Your task to perform on an android device: What is the recent news? Image 0: 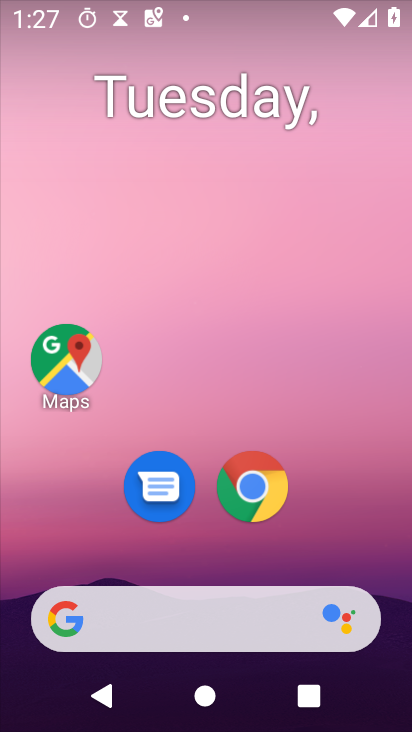
Step 0: drag from (397, 555) to (265, 11)
Your task to perform on an android device: What is the recent news? Image 1: 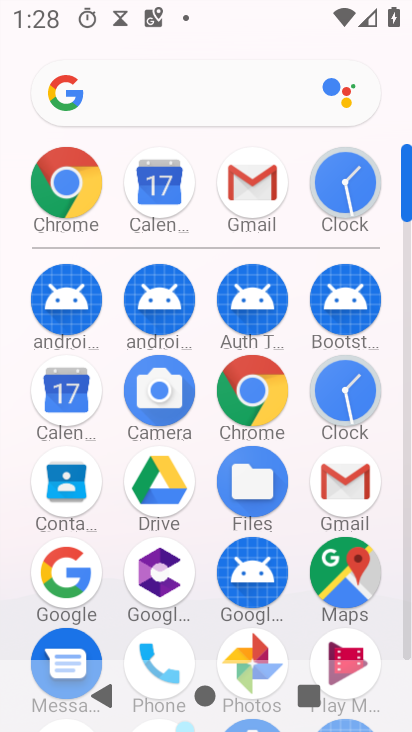
Step 1: click (70, 200)
Your task to perform on an android device: What is the recent news? Image 2: 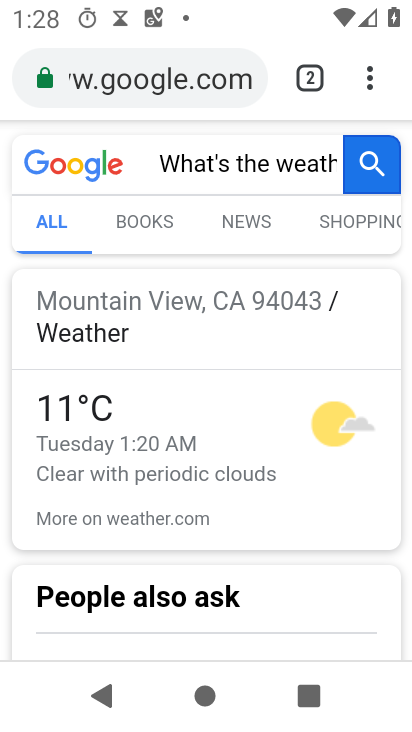
Step 2: click (151, 89)
Your task to perform on an android device: What is the recent news? Image 3: 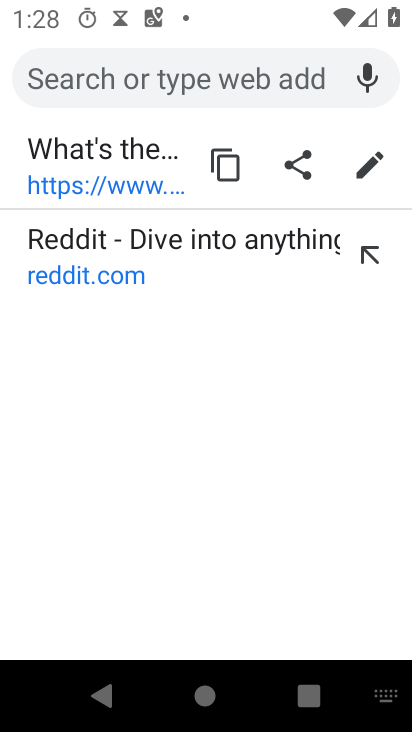
Step 3: type "news"
Your task to perform on an android device: What is the recent news? Image 4: 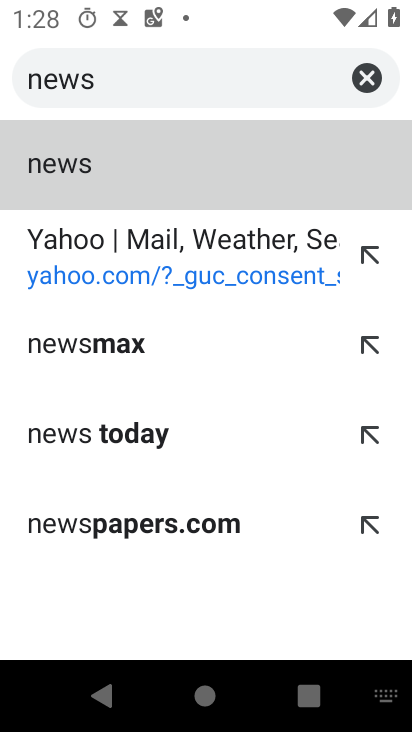
Step 4: click (84, 174)
Your task to perform on an android device: What is the recent news? Image 5: 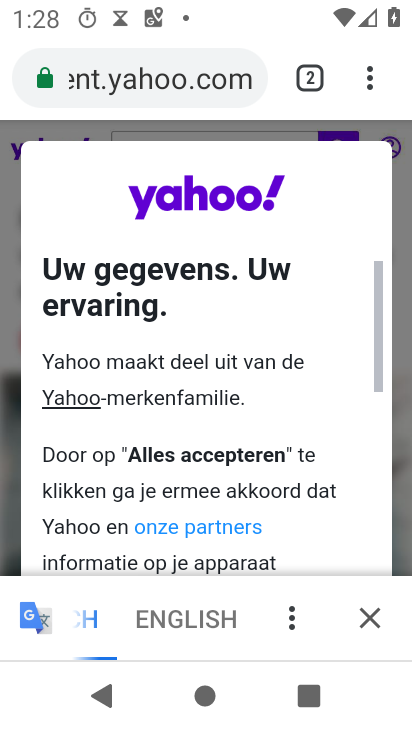
Step 5: click (369, 622)
Your task to perform on an android device: What is the recent news? Image 6: 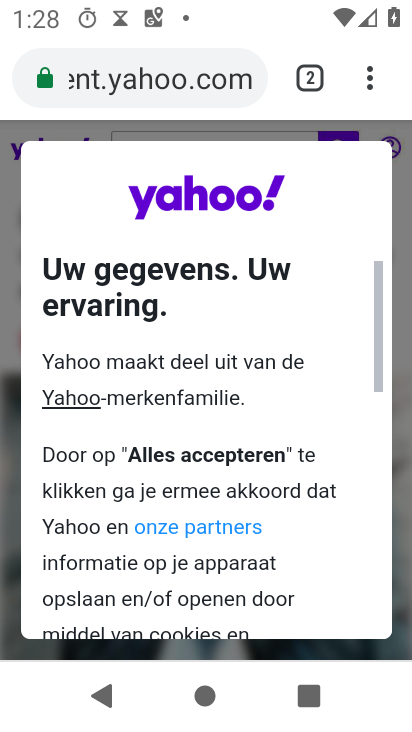
Step 6: drag from (264, 582) to (198, 205)
Your task to perform on an android device: What is the recent news? Image 7: 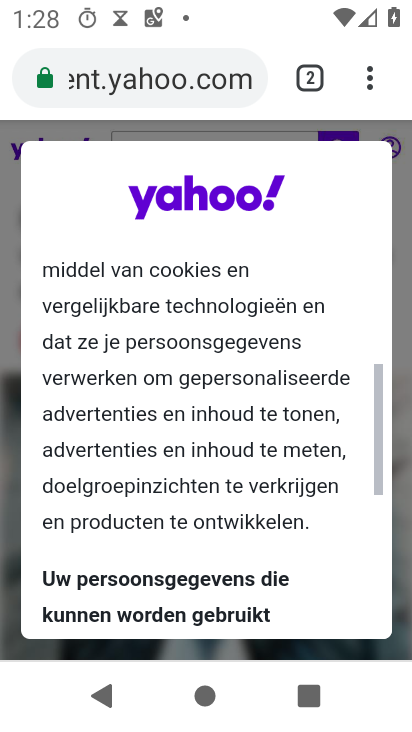
Step 7: drag from (322, 605) to (304, 192)
Your task to perform on an android device: What is the recent news? Image 8: 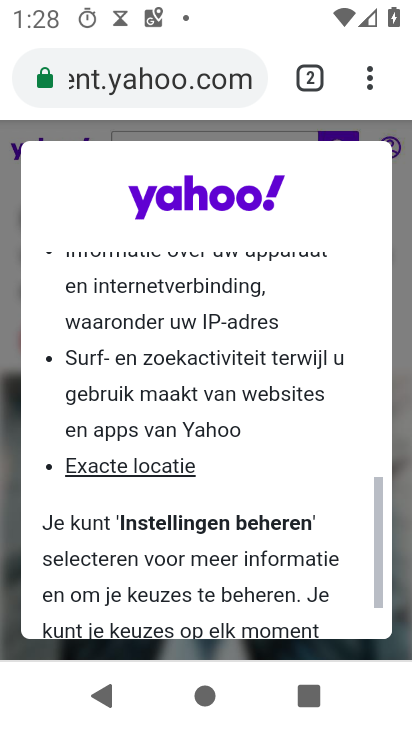
Step 8: drag from (356, 601) to (316, 239)
Your task to perform on an android device: What is the recent news? Image 9: 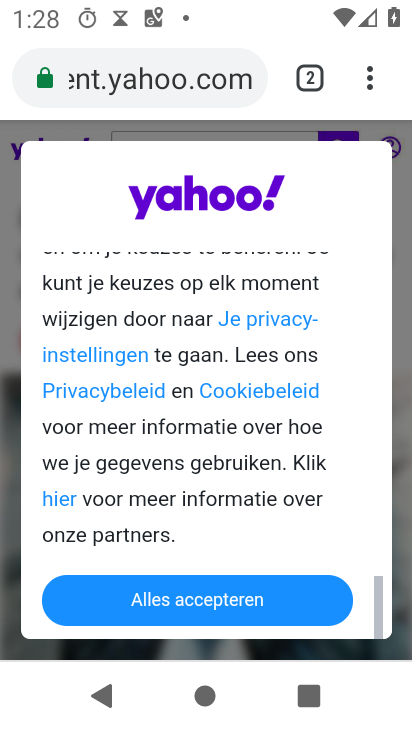
Step 9: click (267, 592)
Your task to perform on an android device: What is the recent news? Image 10: 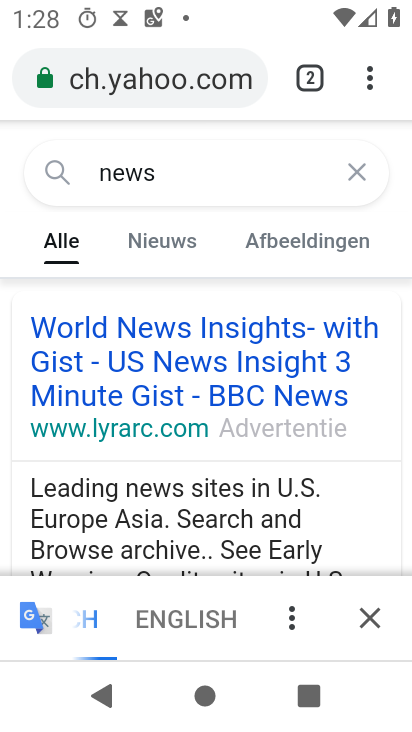
Step 10: click (368, 630)
Your task to perform on an android device: What is the recent news? Image 11: 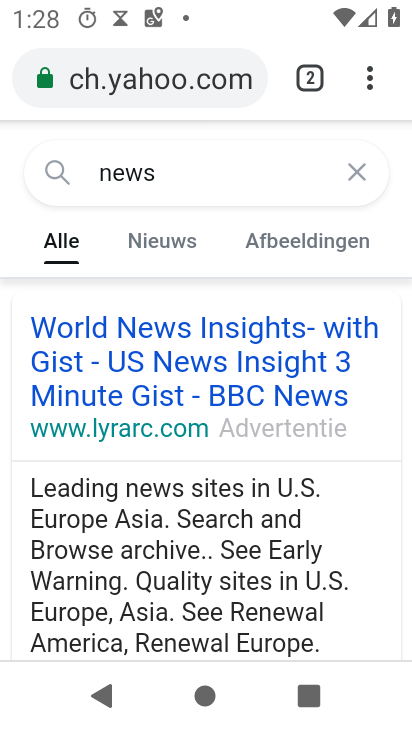
Step 11: click (251, 388)
Your task to perform on an android device: What is the recent news? Image 12: 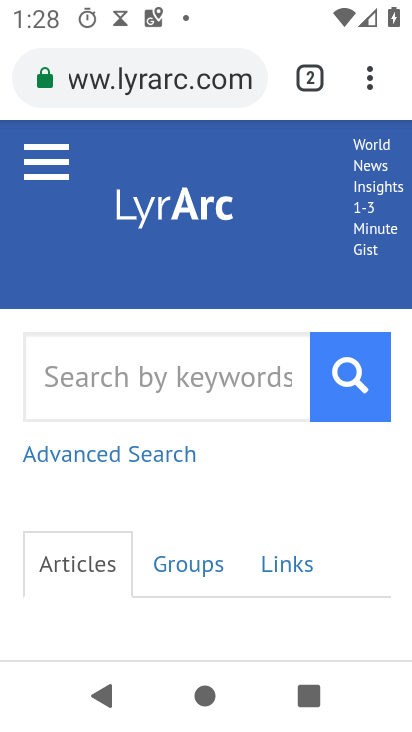
Step 12: task complete